Your task to perform on an android device: Do I have any events tomorrow? Image 0: 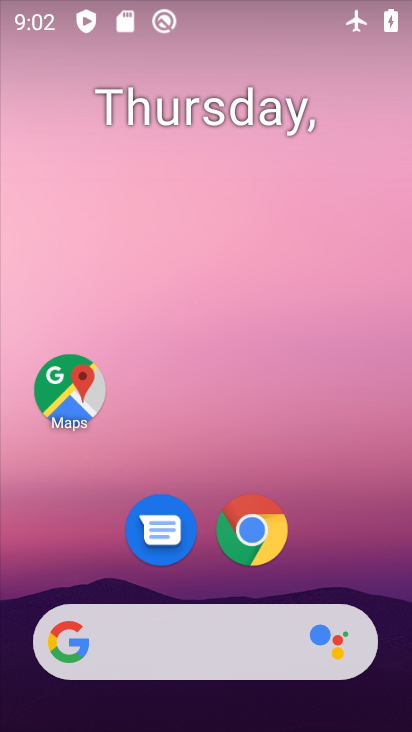
Step 0: drag from (328, 565) to (283, 46)
Your task to perform on an android device: Do I have any events tomorrow? Image 1: 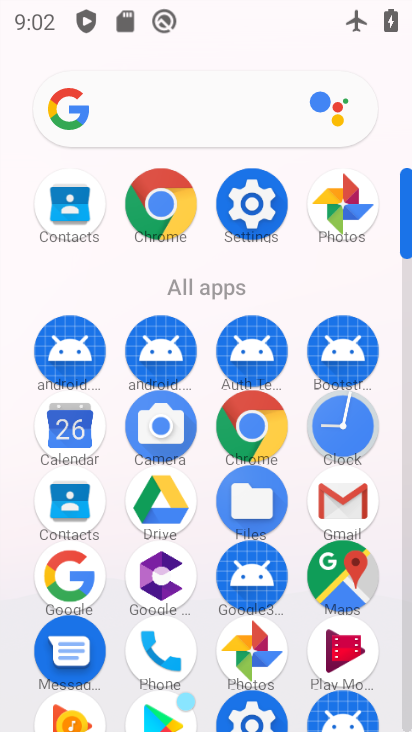
Step 1: drag from (17, 567) to (19, 211)
Your task to perform on an android device: Do I have any events tomorrow? Image 2: 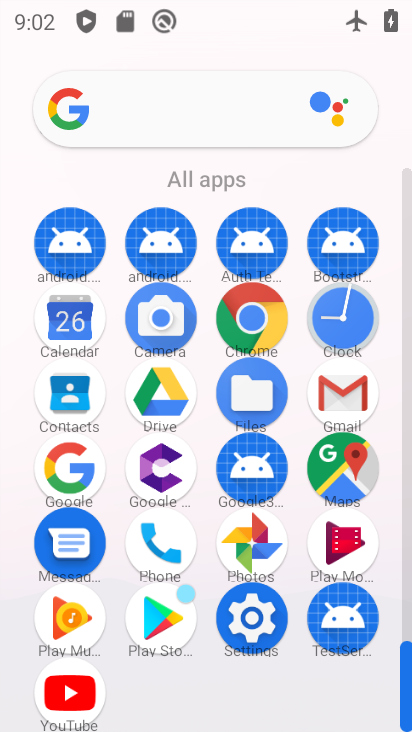
Step 2: click (251, 312)
Your task to perform on an android device: Do I have any events tomorrow? Image 3: 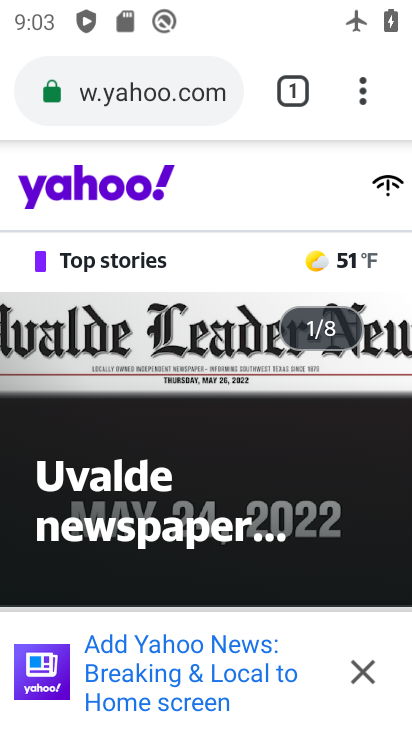
Step 3: click (157, 94)
Your task to perform on an android device: Do I have any events tomorrow? Image 4: 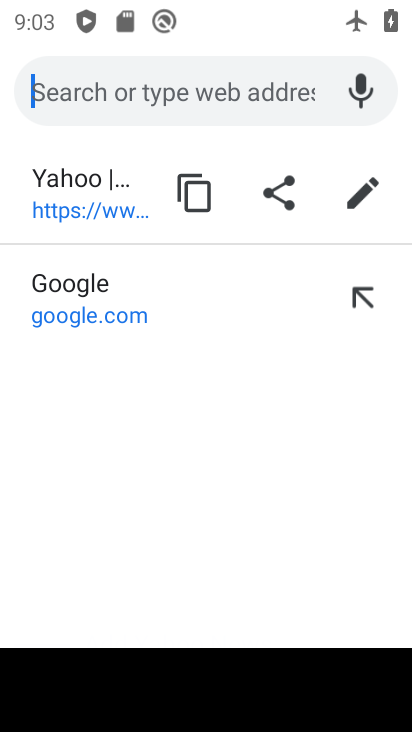
Step 4: type "Do I have any events tomorrow?"
Your task to perform on an android device: Do I have any events tomorrow? Image 5: 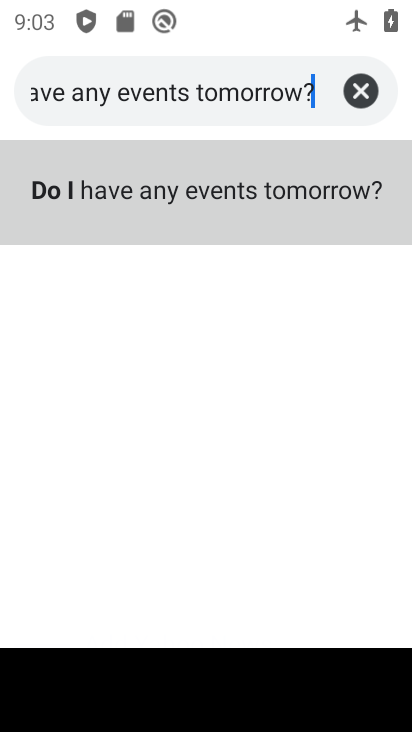
Step 5: click (196, 183)
Your task to perform on an android device: Do I have any events tomorrow? Image 6: 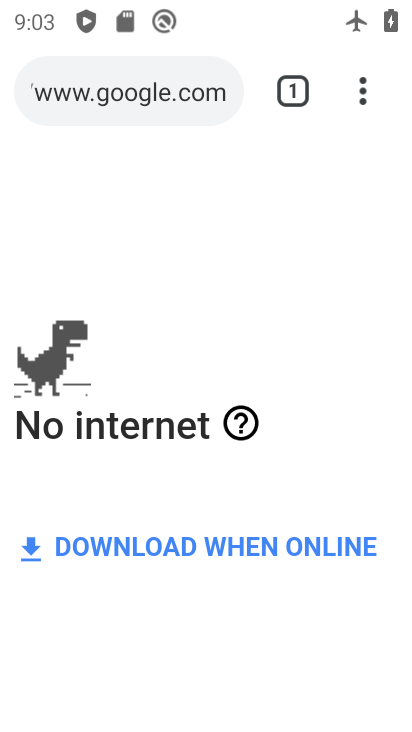
Step 6: task complete